Your task to perform on an android device: change the upload size in google photos Image 0: 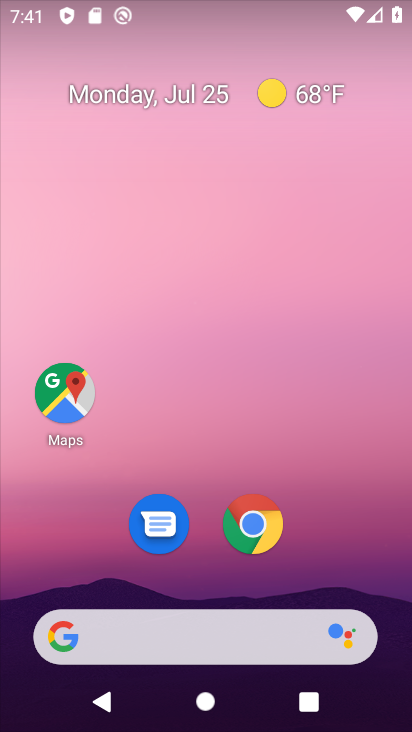
Step 0: drag from (325, 583) to (284, 96)
Your task to perform on an android device: change the upload size in google photos Image 1: 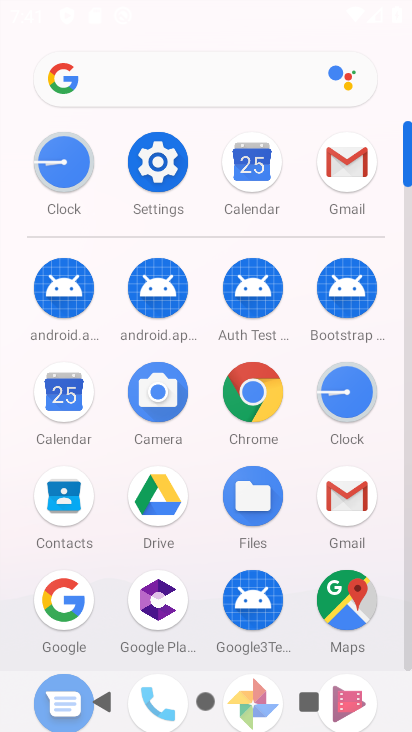
Step 1: drag from (216, 538) to (219, 232)
Your task to perform on an android device: change the upload size in google photos Image 2: 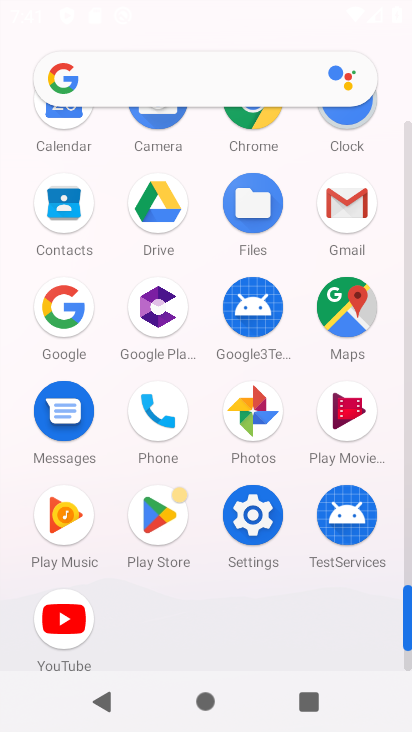
Step 2: click (250, 408)
Your task to perform on an android device: change the upload size in google photos Image 3: 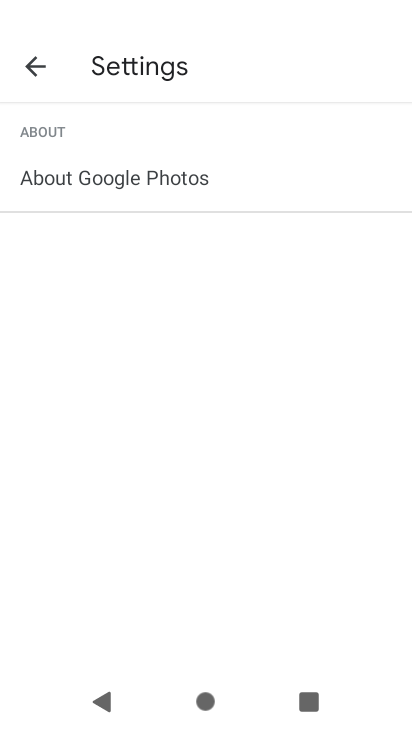
Step 3: click (40, 64)
Your task to perform on an android device: change the upload size in google photos Image 4: 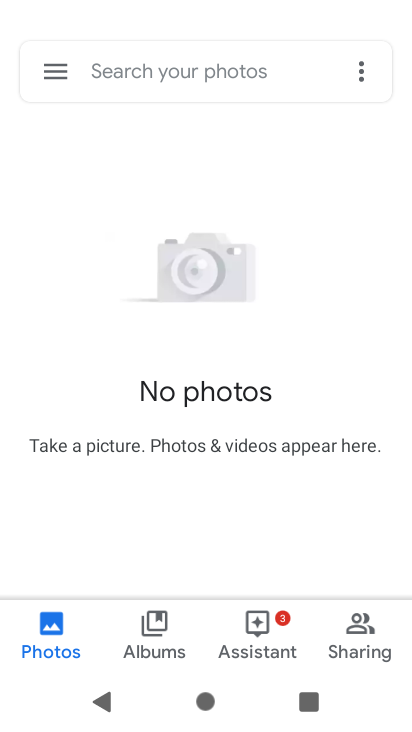
Step 4: click (59, 75)
Your task to perform on an android device: change the upload size in google photos Image 5: 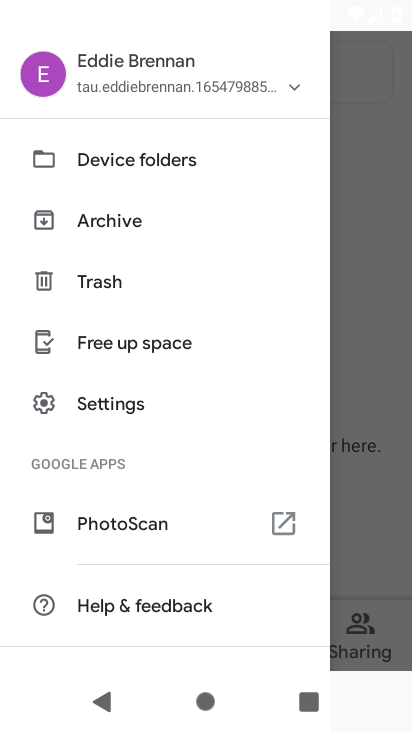
Step 5: click (138, 400)
Your task to perform on an android device: change the upload size in google photos Image 6: 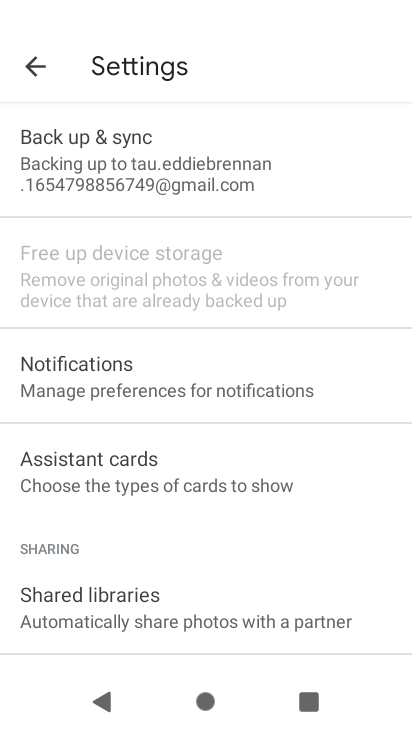
Step 6: click (144, 149)
Your task to perform on an android device: change the upload size in google photos Image 7: 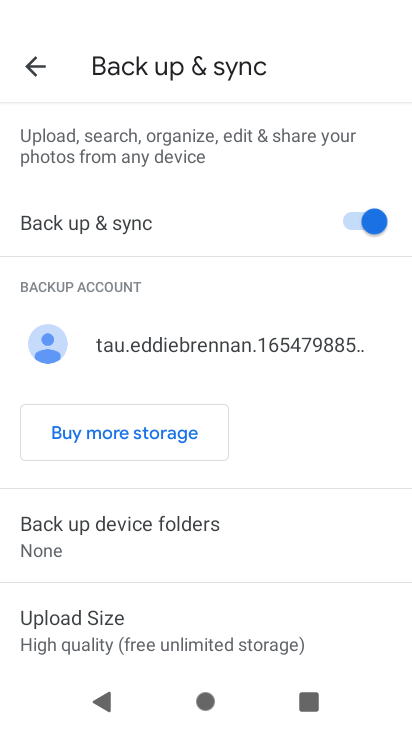
Step 7: click (144, 620)
Your task to perform on an android device: change the upload size in google photos Image 8: 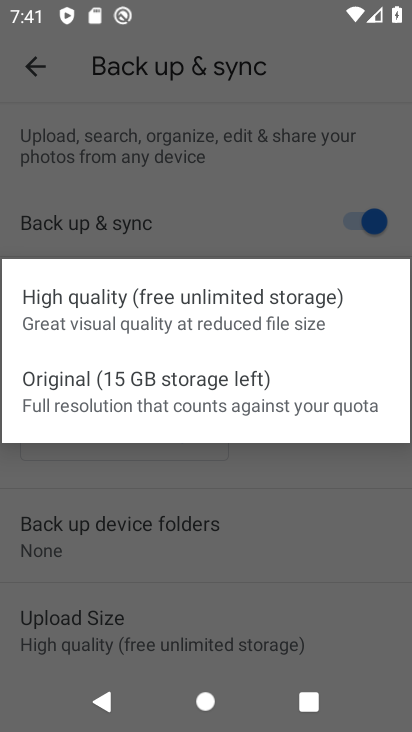
Step 8: click (171, 400)
Your task to perform on an android device: change the upload size in google photos Image 9: 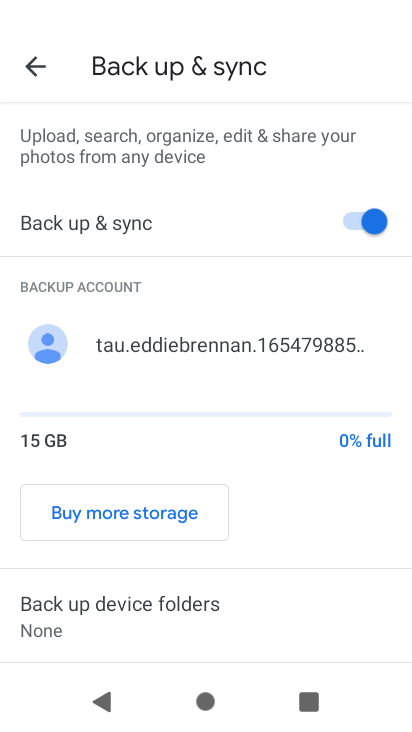
Step 9: task complete